Your task to perform on an android device: uninstall "Google Chat" Image 0: 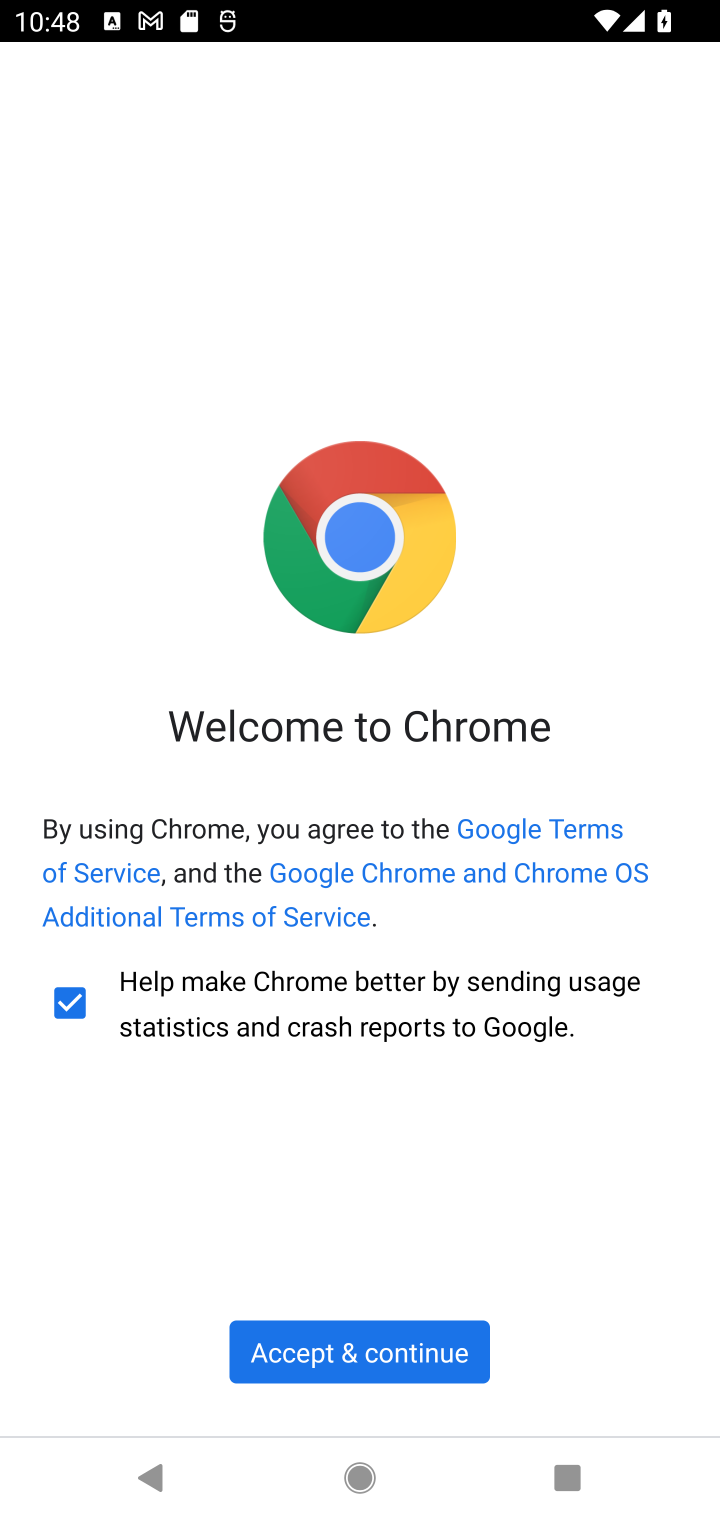
Step 0: press home button
Your task to perform on an android device: uninstall "Google Chat" Image 1: 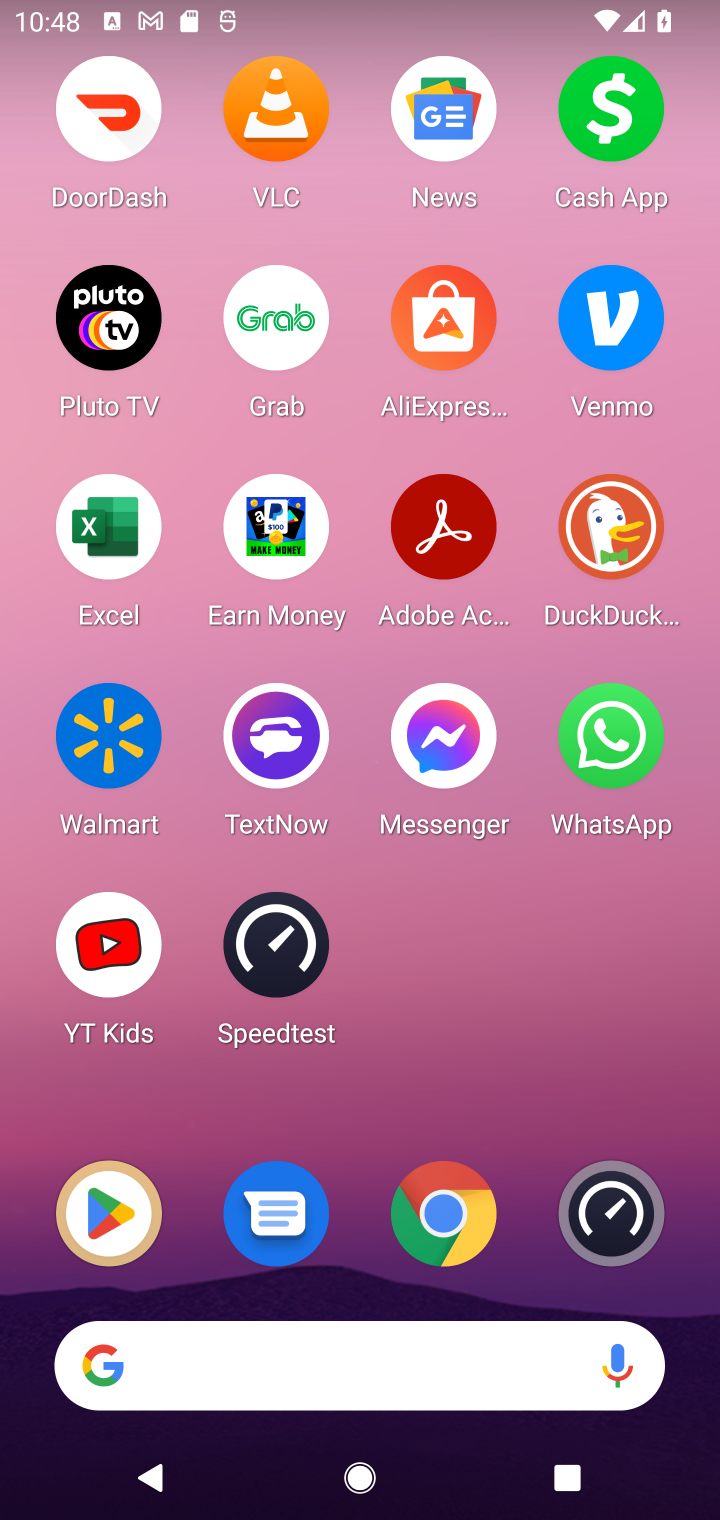
Step 1: click (127, 1219)
Your task to perform on an android device: uninstall "Google Chat" Image 2: 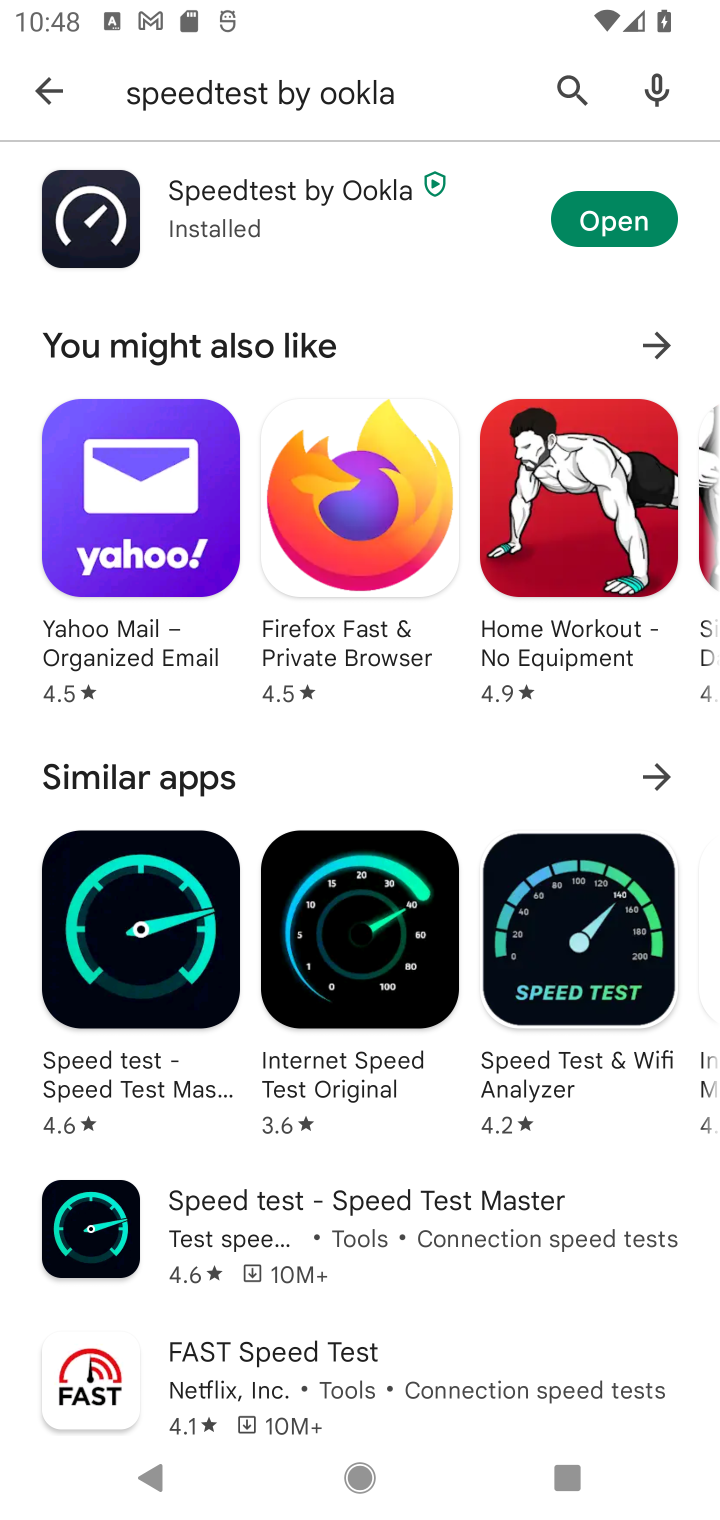
Step 2: click (41, 86)
Your task to perform on an android device: uninstall "Google Chat" Image 3: 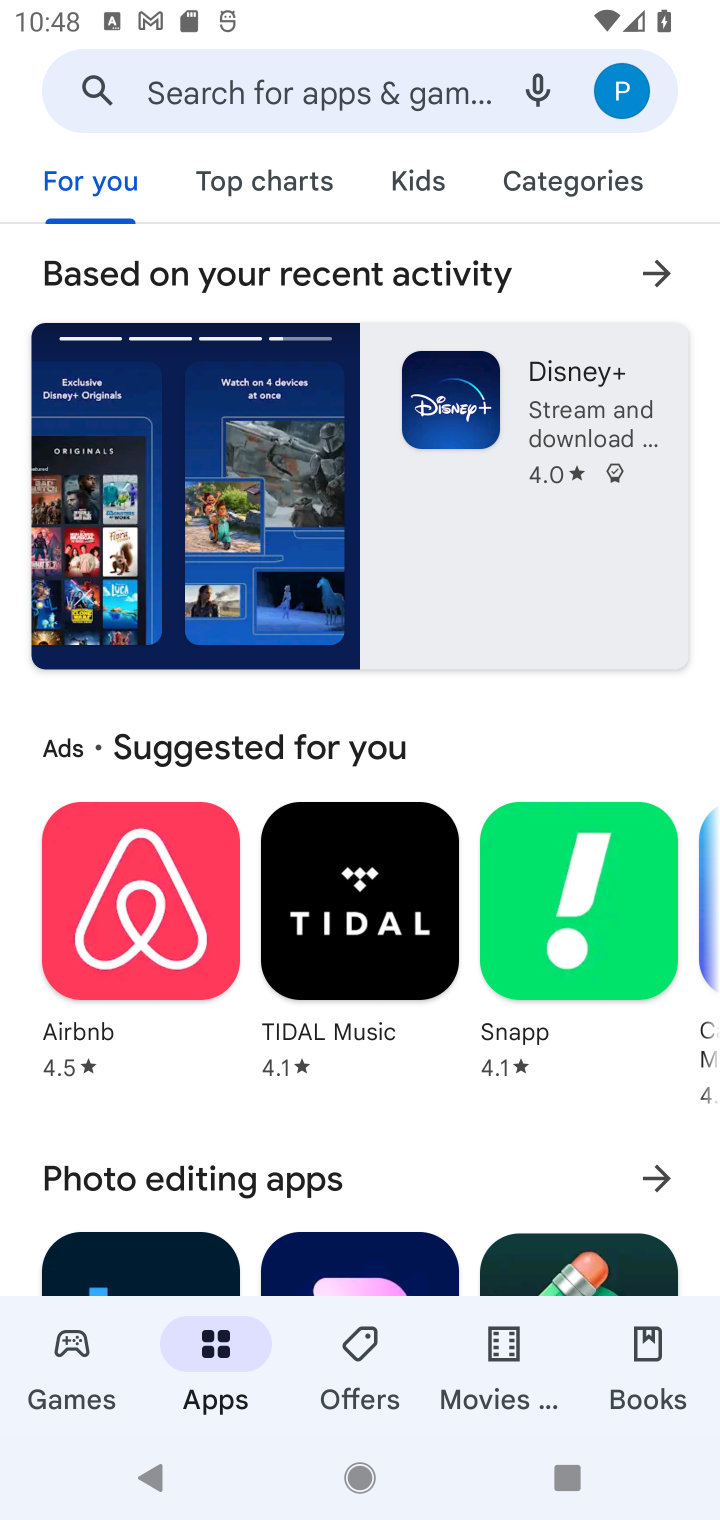
Step 3: click (254, 85)
Your task to perform on an android device: uninstall "Google Chat" Image 4: 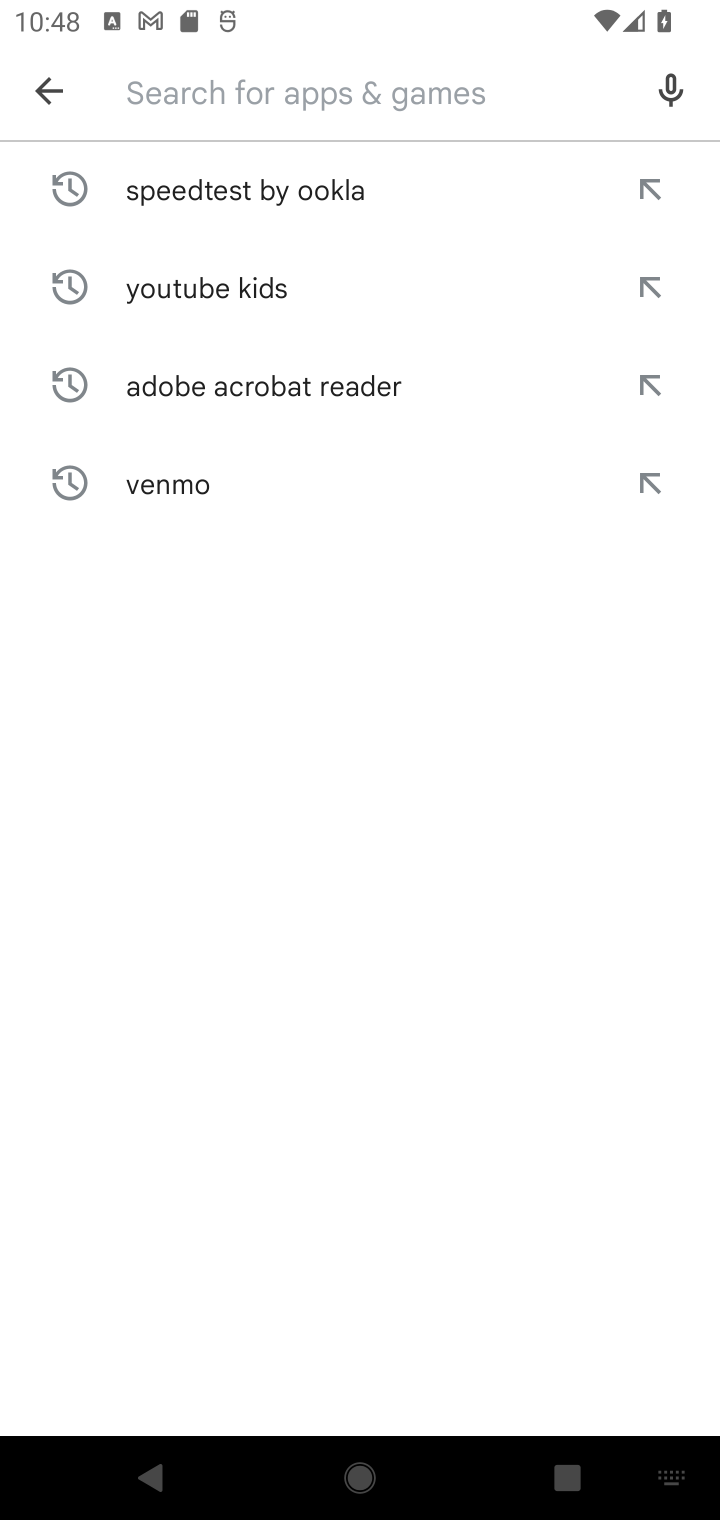
Step 4: type "Google Chat"
Your task to perform on an android device: uninstall "Google Chat" Image 5: 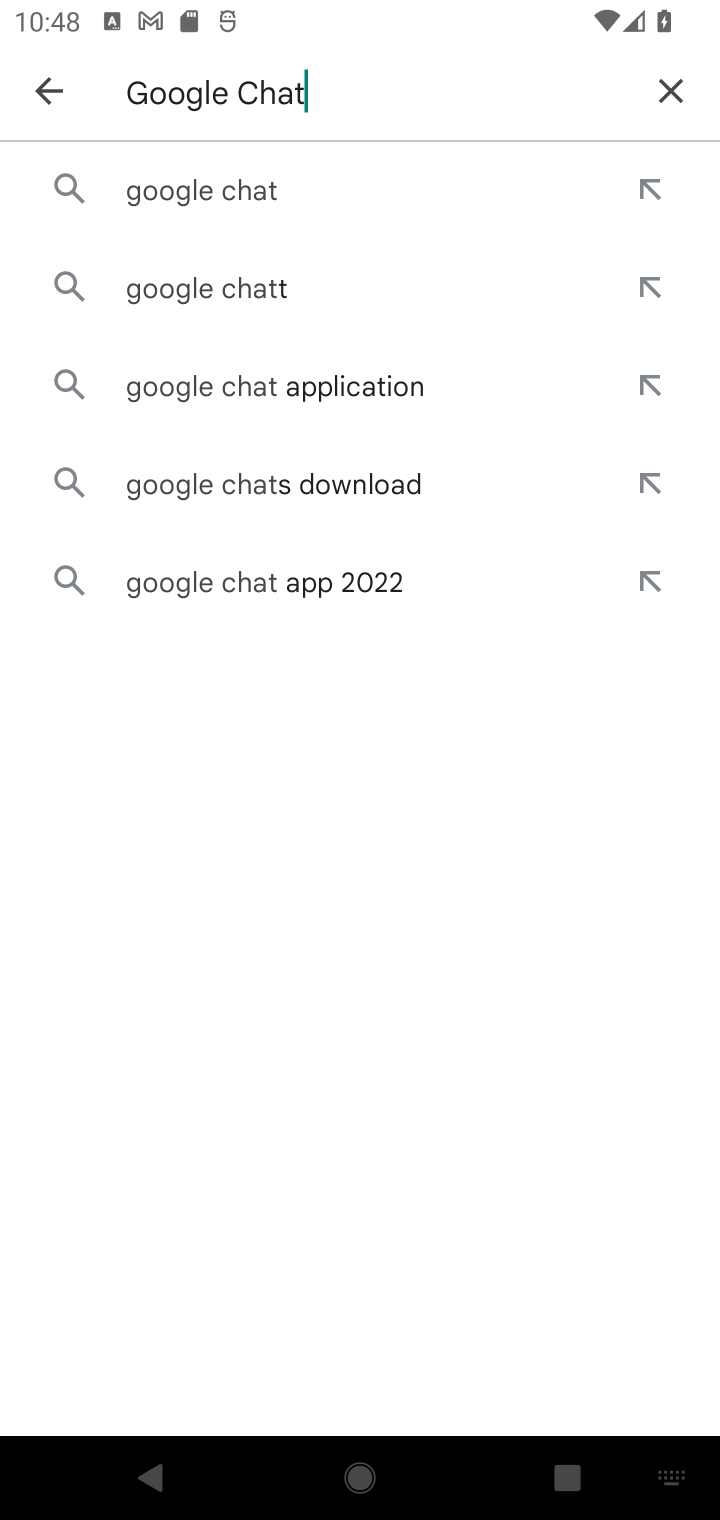
Step 5: click (206, 205)
Your task to perform on an android device: uninstall "Google Chat" Image 6: 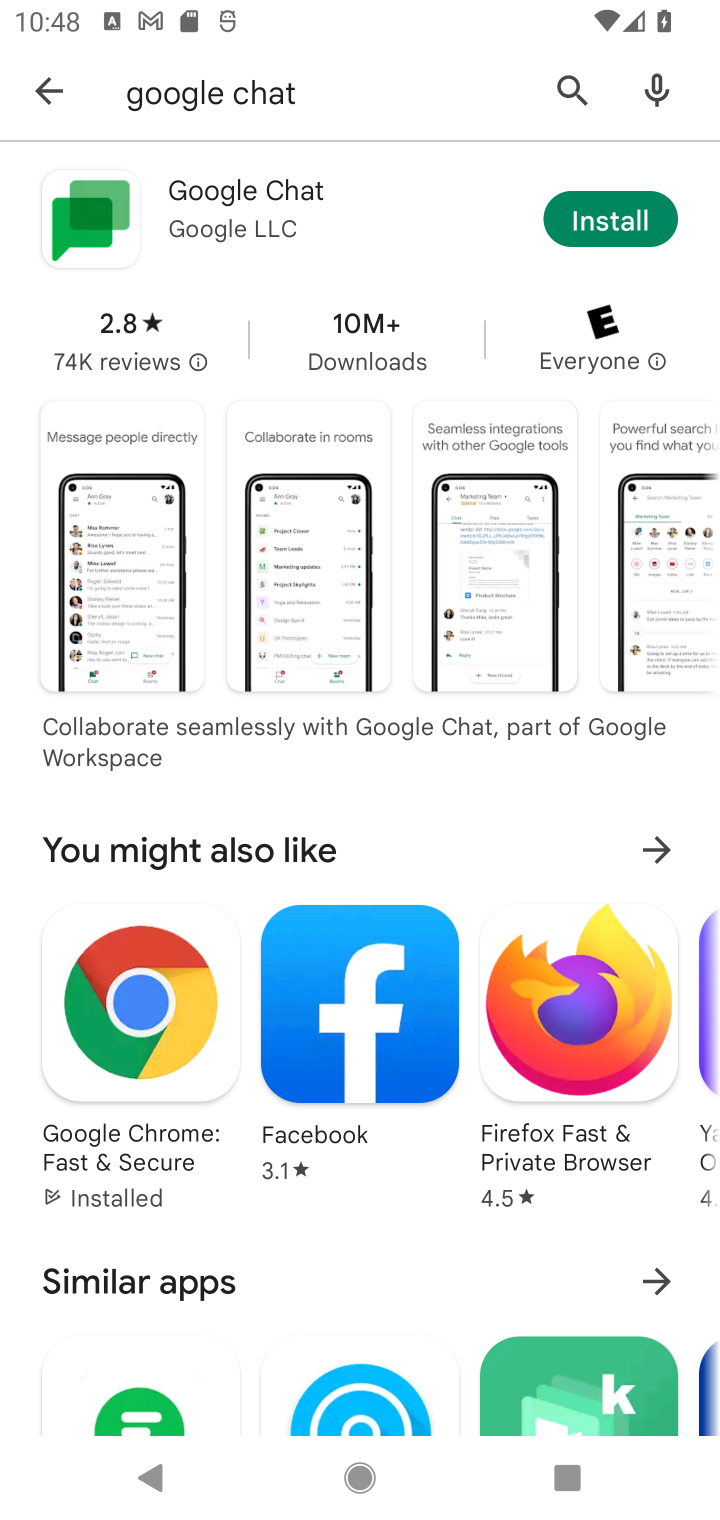
Step 6: click (599, 212)
Your task to perform on an android device: uninstall "Google Chat" Image 7: 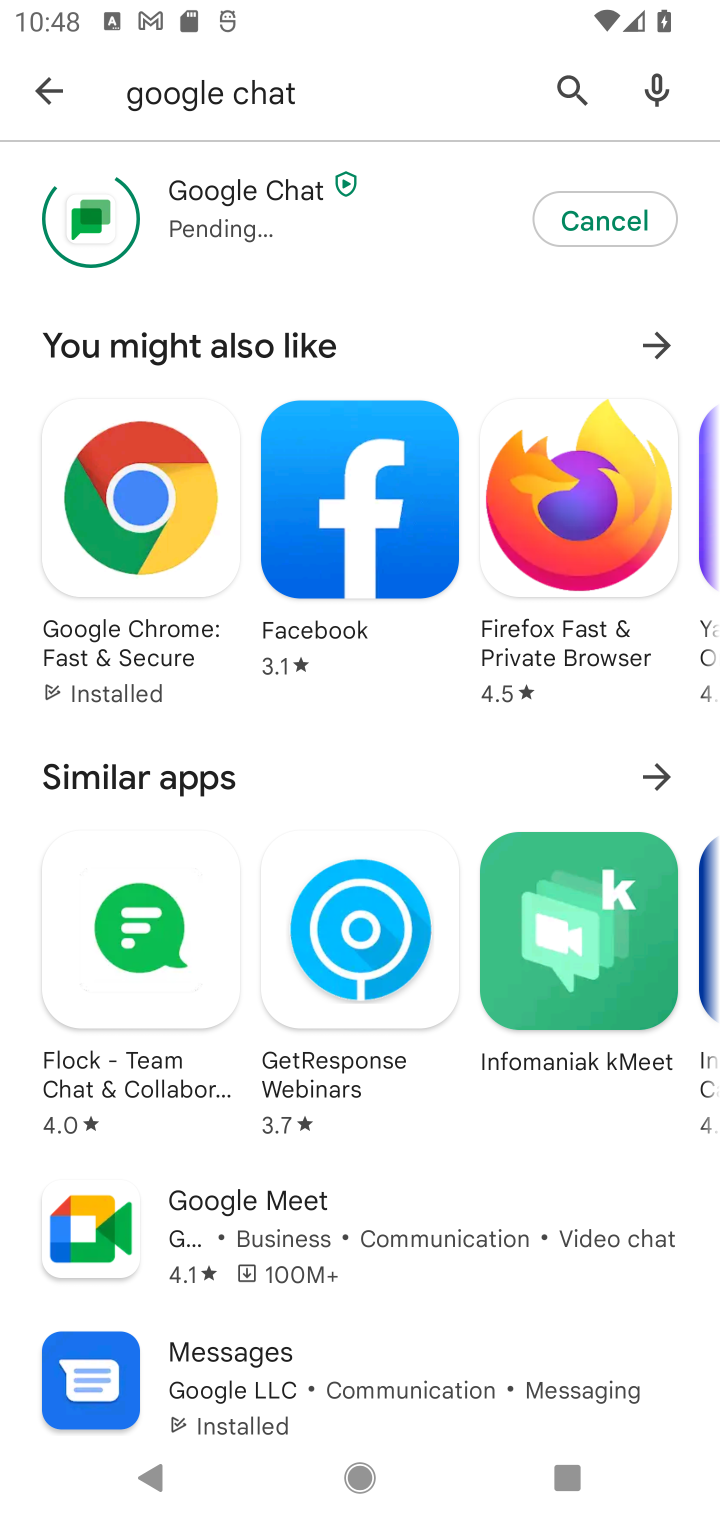
Step 7: task complete